Your task to perform on an android device: change text size in settings app Image 0: 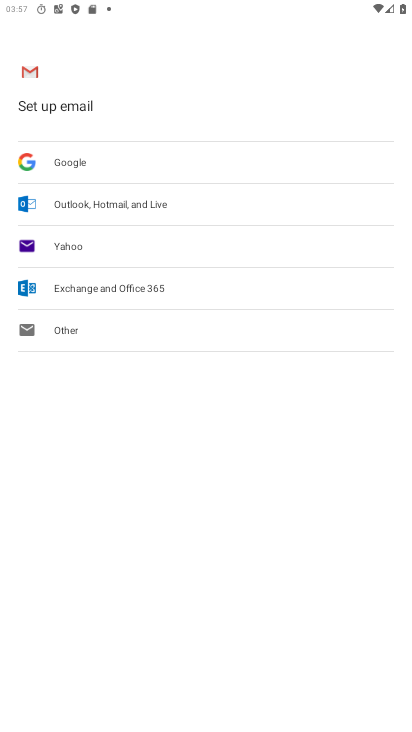
Step 0: click (305, 631)
Your task to perform on an android device: change text size in settings app Image 1: 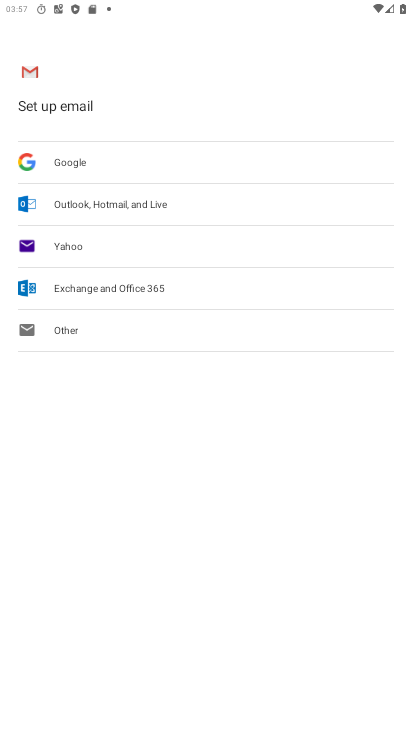
Step 1: press home button
Your task to perform on an android device: change text size in settings app Image 2: 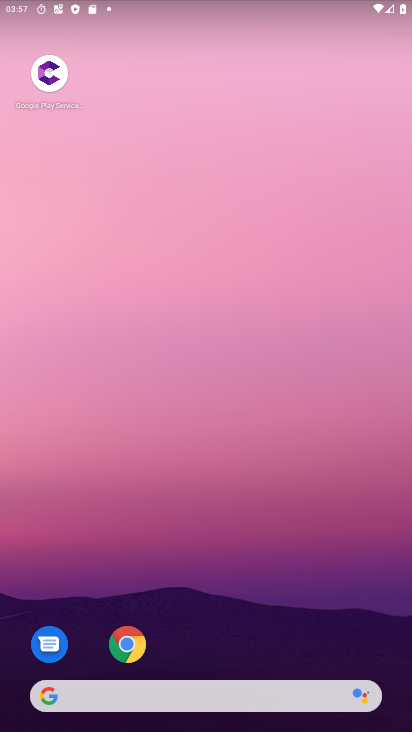
Step 2: drag from (214, 642) to (146, 210)
Your task to perform on an android device: change text size in settings app Image 3: 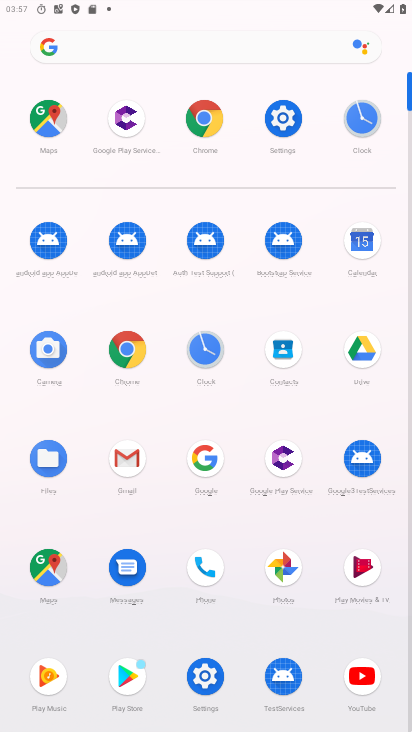
Step 3: click (283, 139)
Your task to perform on an android device: change text size in settings app Image 4: 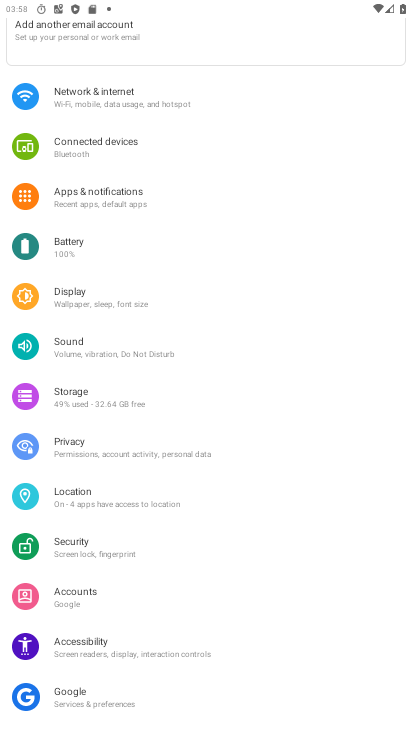
Step 4: click (168, 300)
Your task to perform on an android device: change text size in settings app Image 5: 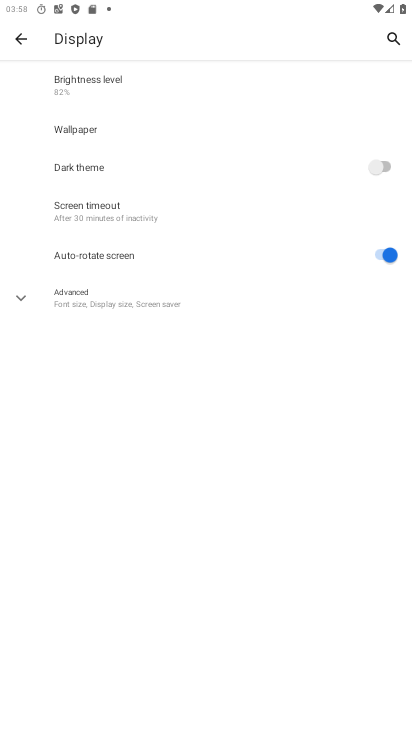
Step 5: click (168, 300)
Your task to perform on an android device: change text size in settings app Image 6: 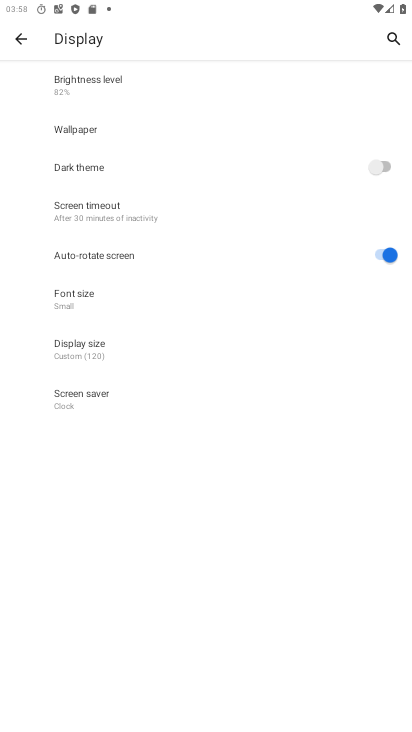
Step 6: click (168, 300)
Your task to perform on an android device: change text size in settings app Image 7: 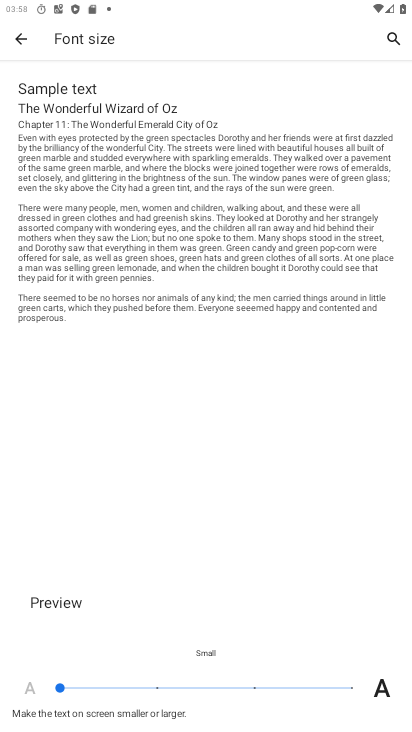
Step 7: click (254, 693)
Your task to perform on an android device: change text size in settings app Image 8: 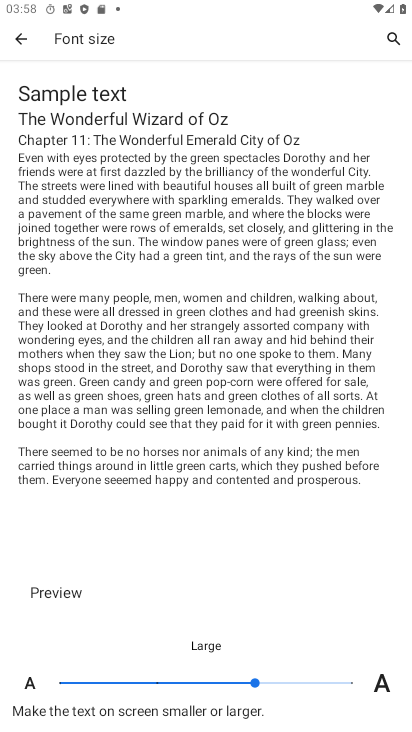
Step 8: task complete